Your task to perform on an android device: When is my next meeting? Image 0: 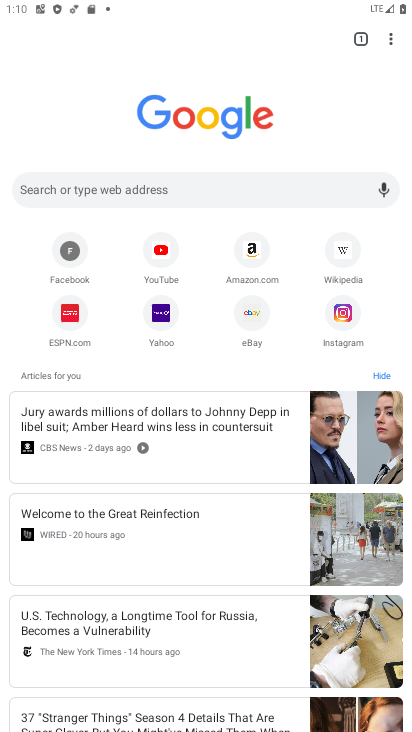
Step 0: press home button
Your task to perform on an android device: When is my next meeting? Image 1: 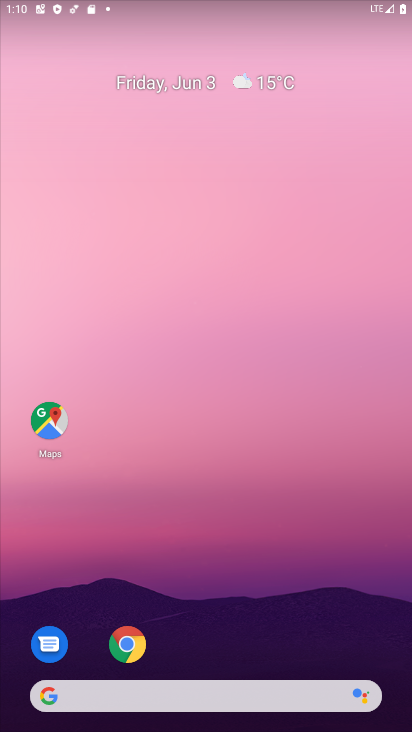
Step 1: drag from (226, 586) to (245, 15)
Your task to perform on an android device: When is my next meeting? Image 2: 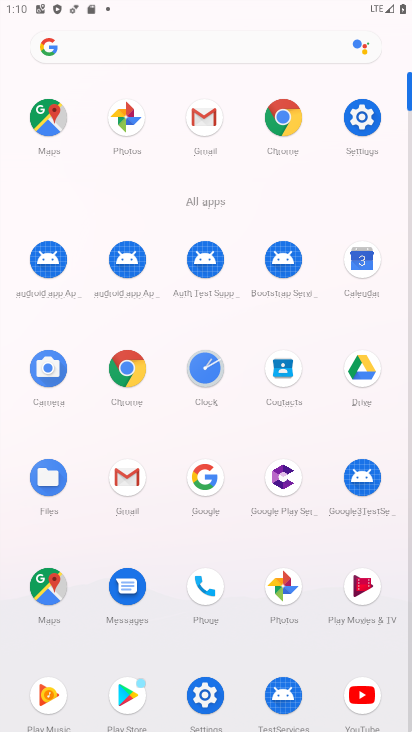
Step 2: click (362, 282)
Your task to perform on an android device: When is my next meeting? Image 3: 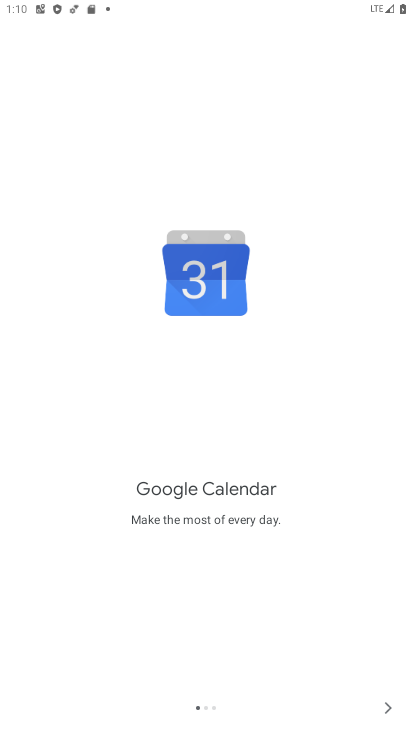
Step 3: click (390, 690)
Your task to perform on an android device: When is my next meeting? Image 4: 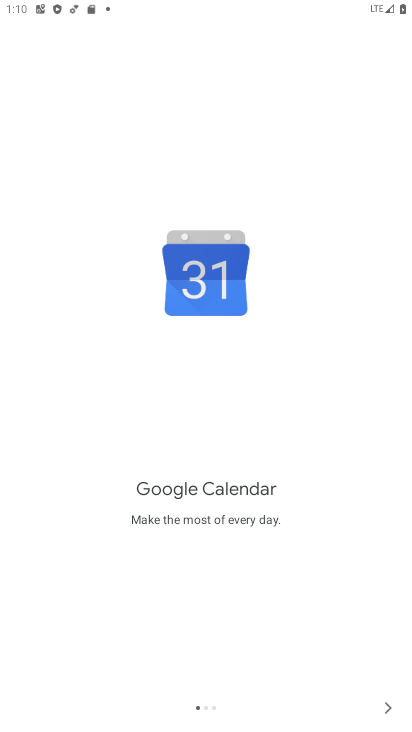
Step 4: click (382, 709)
Your task to perform on an android device: When is my next meeting? Image 5: 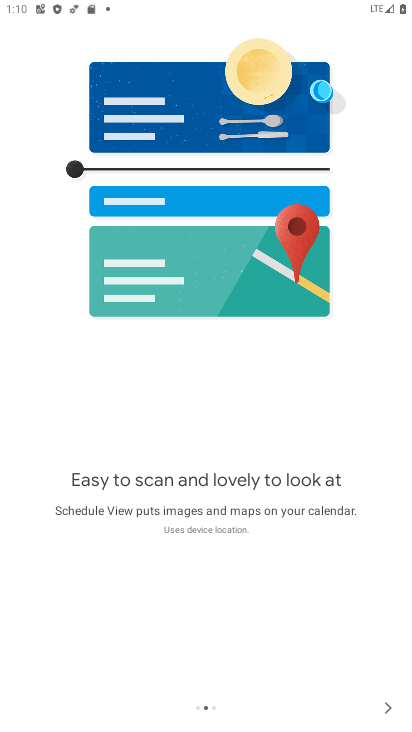
Step 5: click (383, 709)
Your task to perform on an android device: When is my next meeting? Image 6: 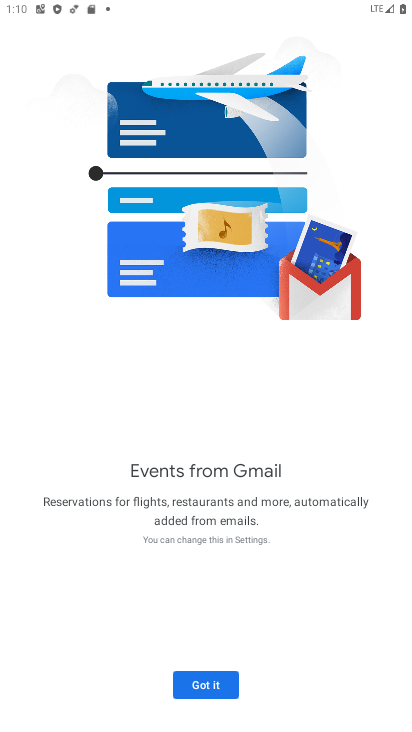
Step 6: click (196, 684)
Your task to perform on an android device: When is my next meeting? Image 7: 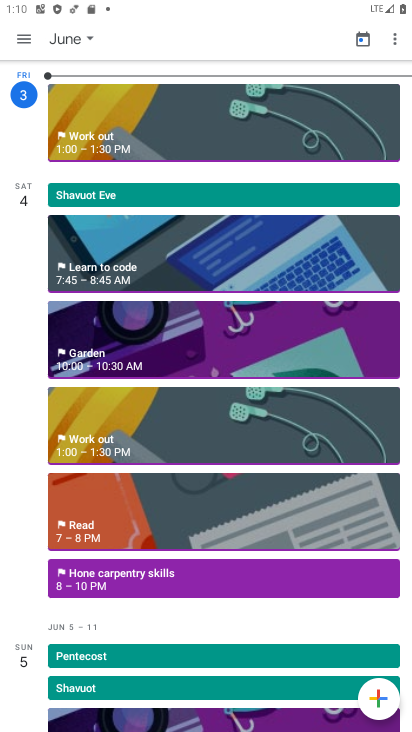
Step 7: drag from (146, 607) to (244, 53)
Your task to perform on an android device: When is my next meeting? Image 8: 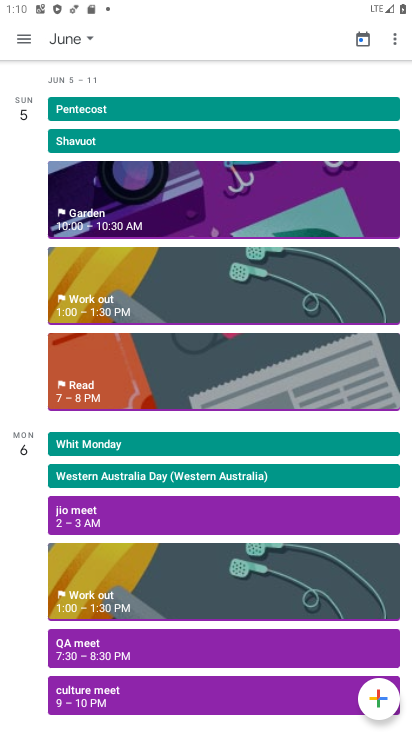
Step 8: click (148, 523)
Your task to perform on an android device: When is my next meeting? Image 9: 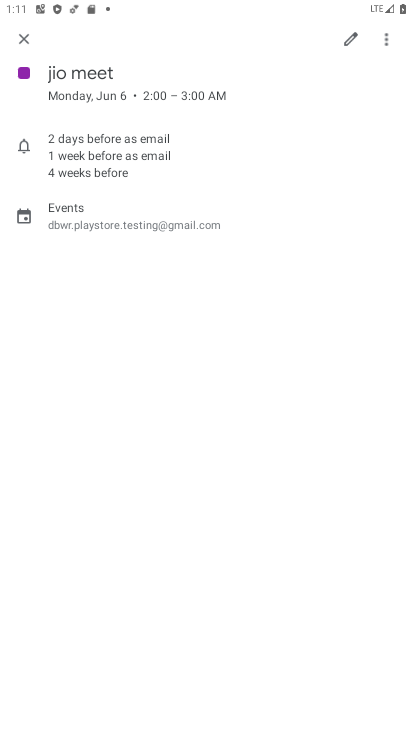
Step 9: task complete